Your task to perform on an android device: Go to Maps Image 0: 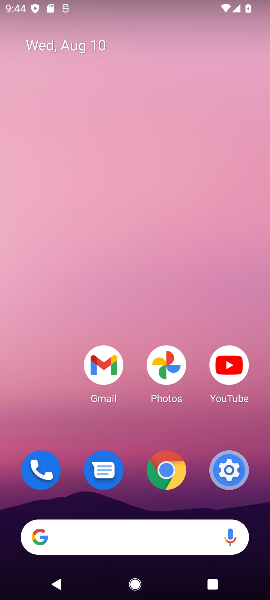
Step 0: drag from (134, 293) to (131, 44)
Your task to perform on an android device: Go to Maps Image 1: 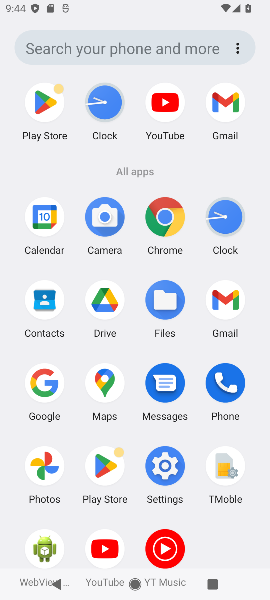
Step 1: click (106, 394)
Your task to perform on an android device: Go to Maps Image 2: 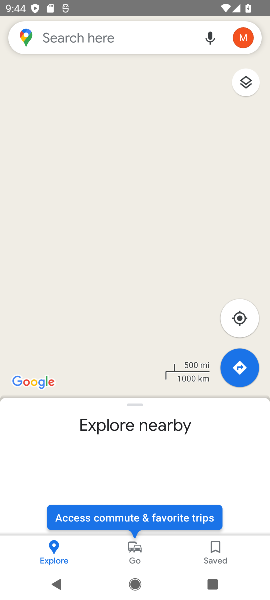
Step 2: task complete